Your task to perform on an android device: Open Yahoo.com Image 0: 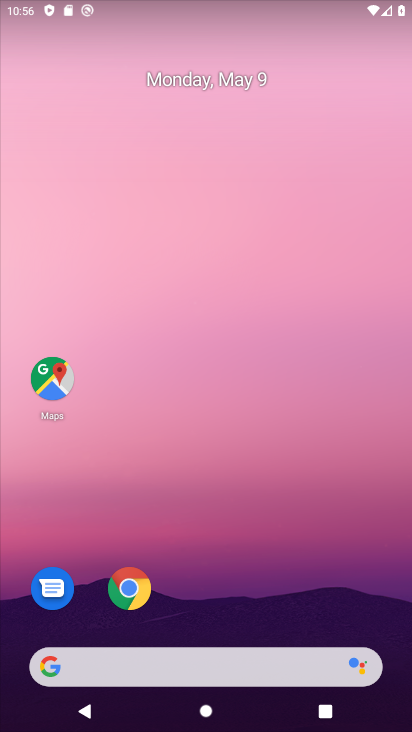
Step 0: drag from (208, 646) to (185, 60)
Your task to perform on an android device: Open Yahoo.com Image 1: 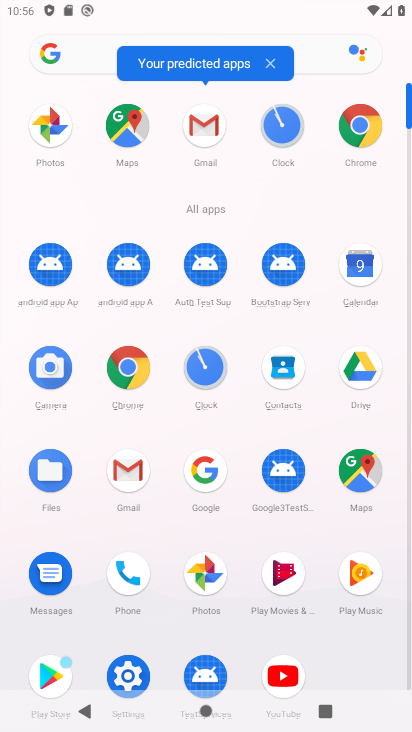
Step 1: click (371, 124)
Your task to perform on an android device: Open Yahoo.com Image 2: 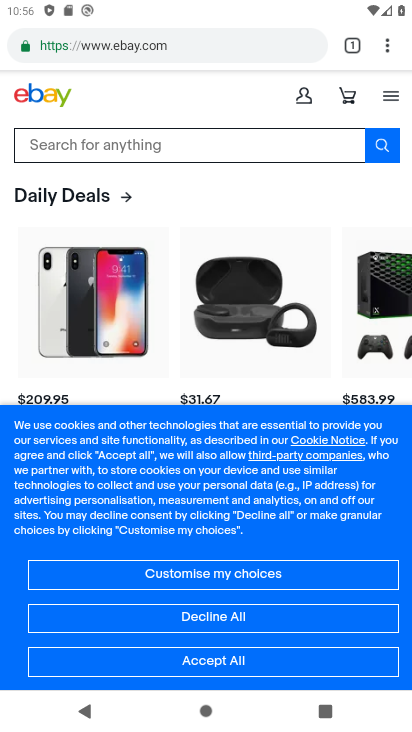
Step 2: click (347, 52)
Your task to perform on an android device: Open Yahoo.com Image 3: 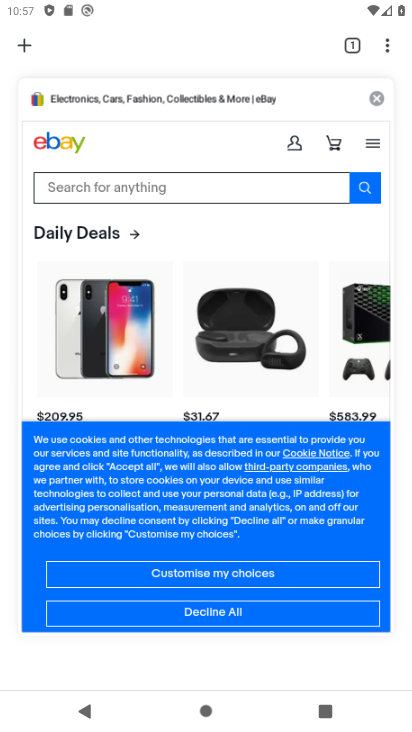
Step 3: click (23, 41)
Your task to perform on an android device: Open Yahoo.com Image 4: 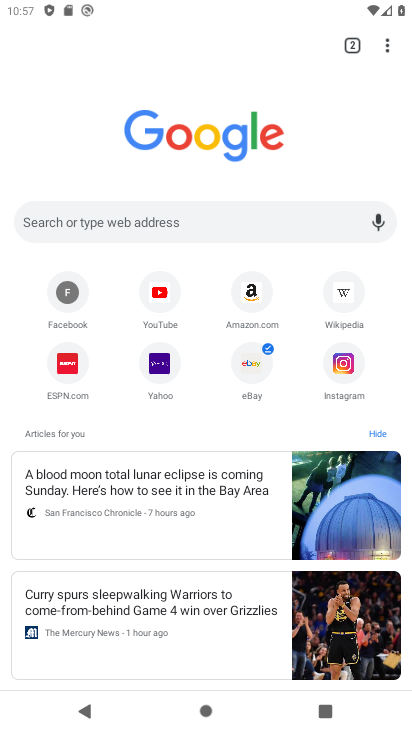
Step 4: click (166, 360)
Your task to perform on an android device: Open Yahoo.com Image 5: 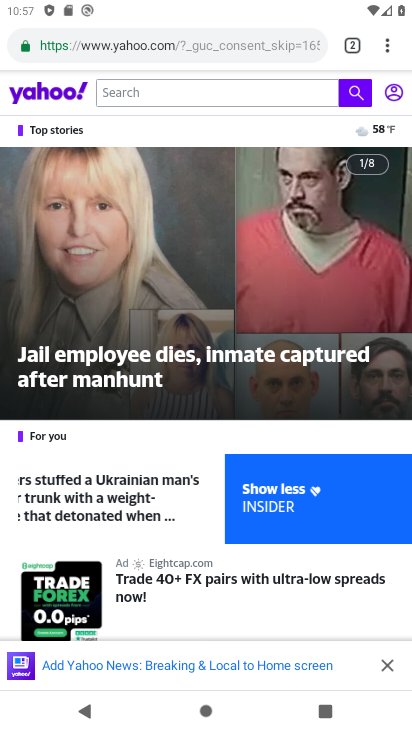
Step 5: task complete